Your task to perform on an android device: clear history in the chrome app Image 0: 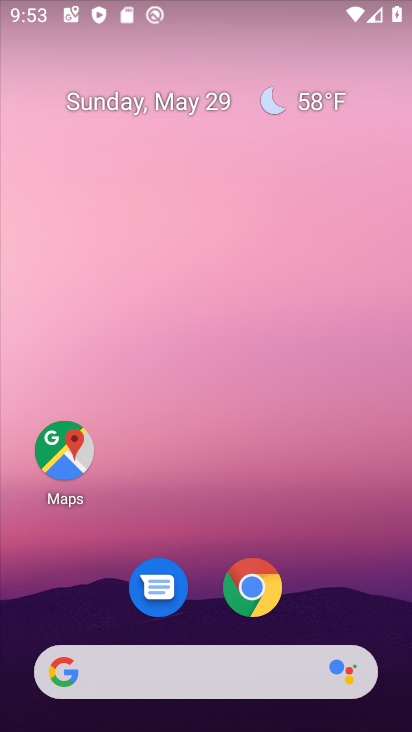
Step 0: drag from (384, 599) to (334, 114)
Your task to perform on an android device: clear history in the chrome app Image 1: 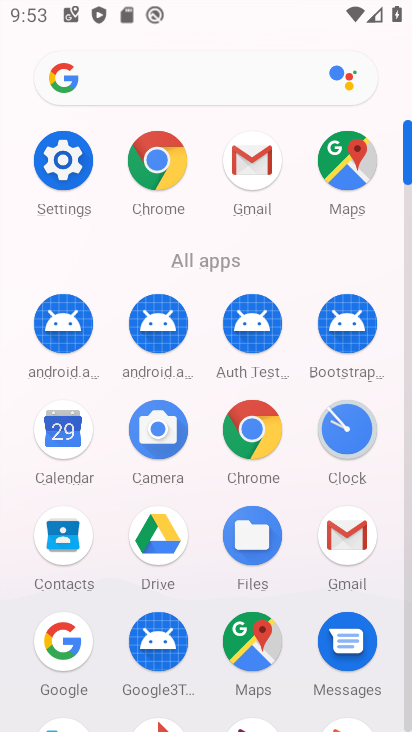
Step 1: click (176, 166)
Your task to perform on an android device: clear history in the chrome app Image 2: 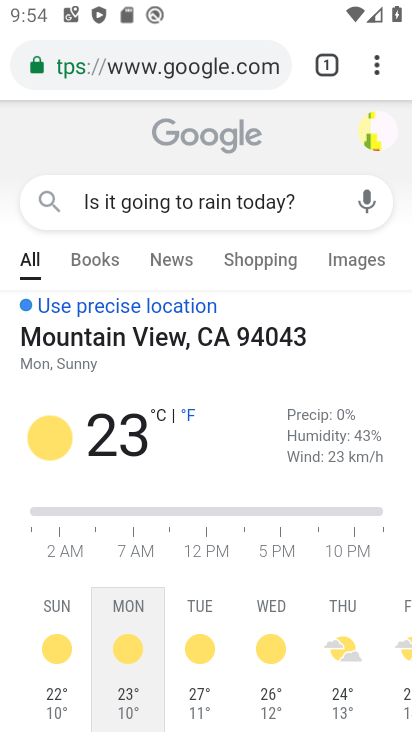
Step 2: click (392, 66)
Your task to perform on an android device: clear history in the chrome app Image 3: 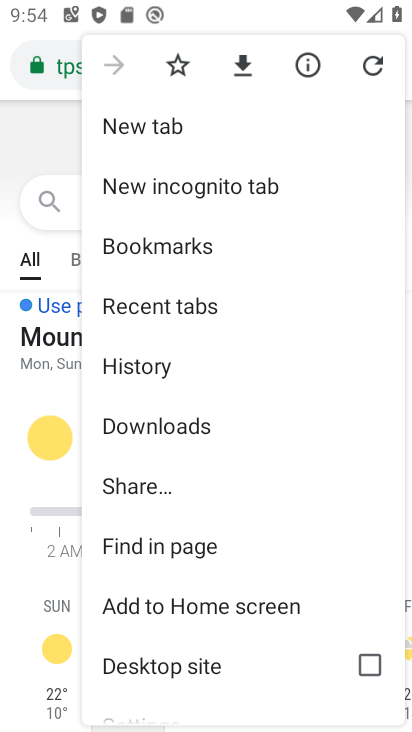
Step 3: click (219, 371)
Your task to perform on an android device: clear history in the chrome app Image 4: 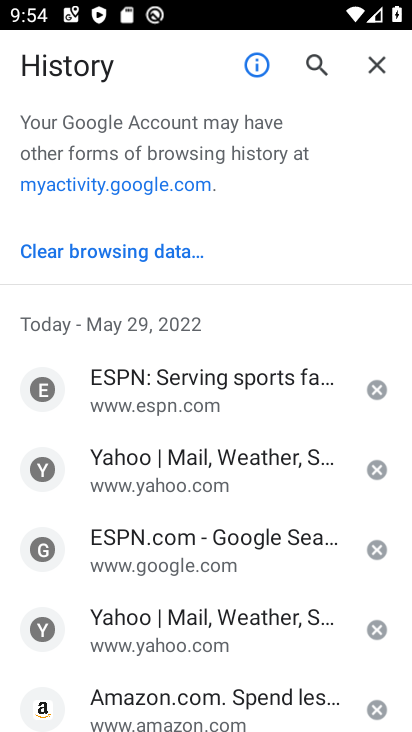
Step 4: click (164, 240)
Your task to perform on an android device: clear history in the chrome app Image 5: 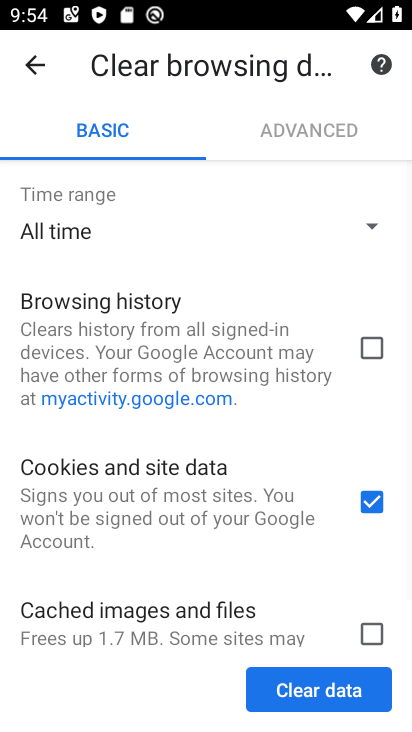
Step 5: click (365, 359)
Your task to perform on an android device: clear history in the chrome app Image 6: 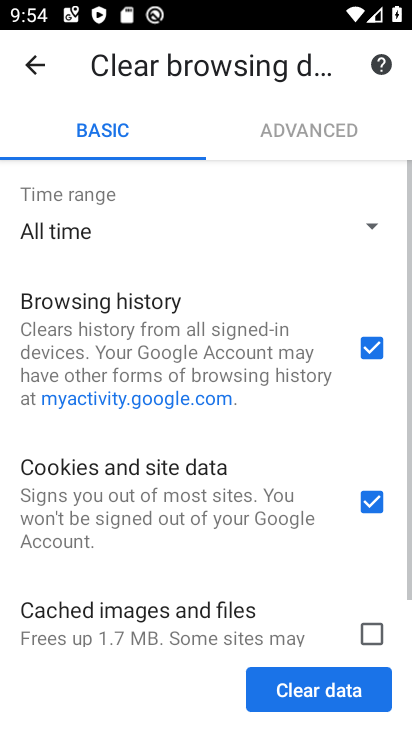
Step 6: click (371, 502)
Your task to perform on an android device: clear history in the chrome app Image 7: 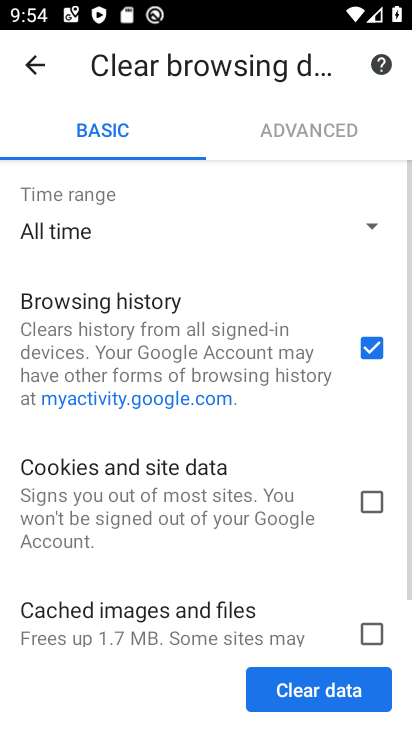
Step 7: click (346, 687)
Your task to perform on an android device: clear history in the chrome app Image 8: 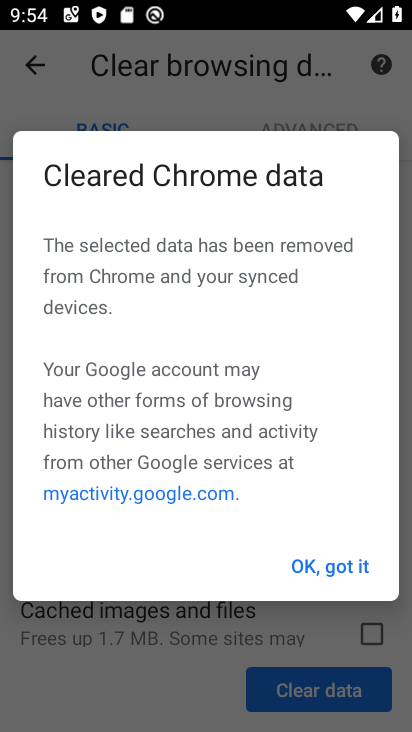
Step 8: click (353, 570)
Your task to perform on an android device: clear history in the chrome app Image 9: 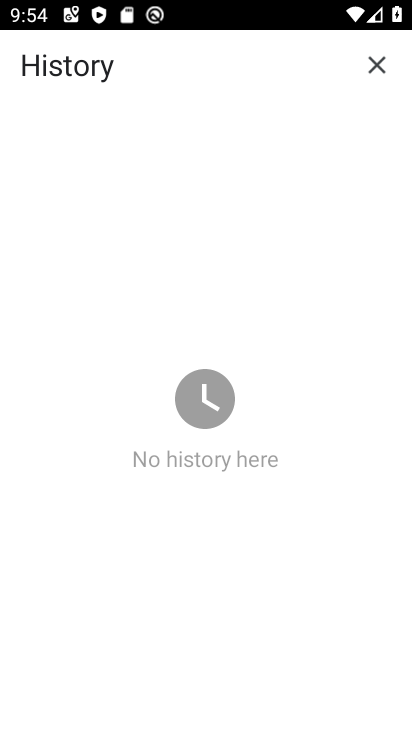
Step 9: task complete